Your task to perform on an android device: open a bookmark in the chrome app Image 0: 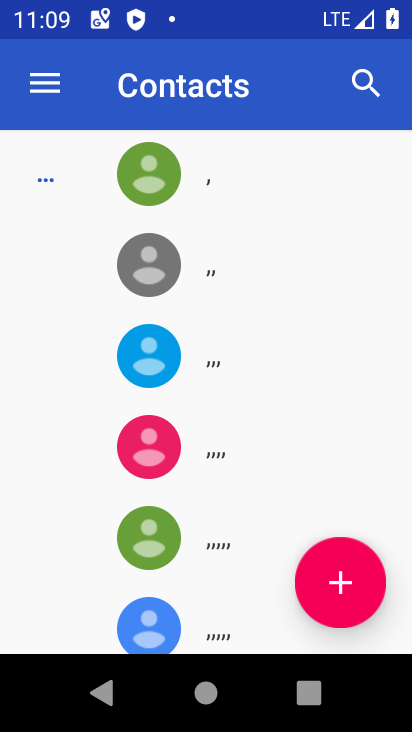
Step 0: press home button
Your task to perform on an android device: open a bookmark in the chrome app Image 1: 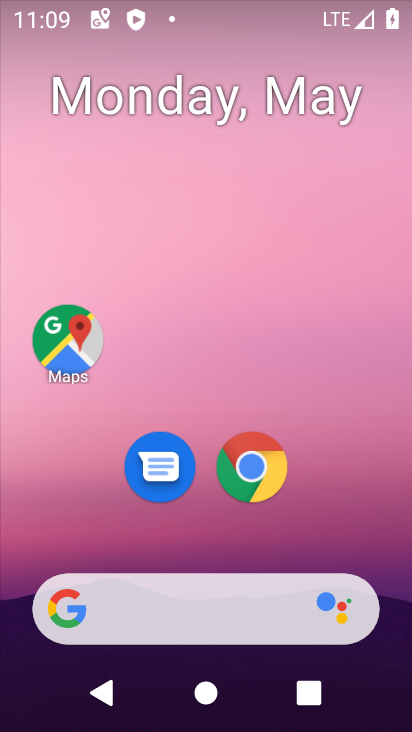
Step 1: click (260, 471)
Your task to perform on an android device: open a bookmark in the chrome app Image 2: 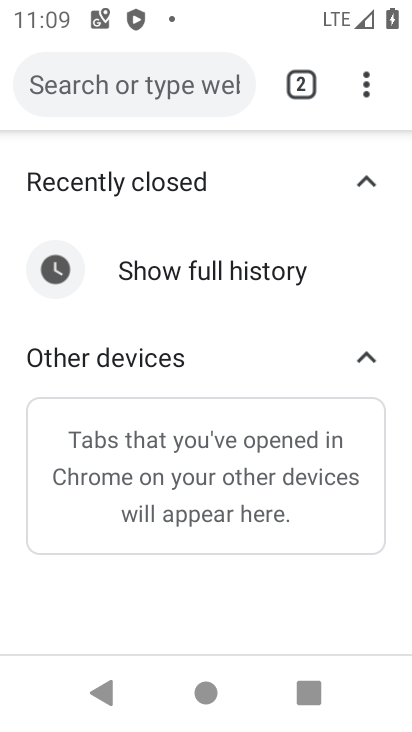
Step 2: click (369, 81)
Your task to perform on an android device: open a bookmark in the chrome app Image 3: 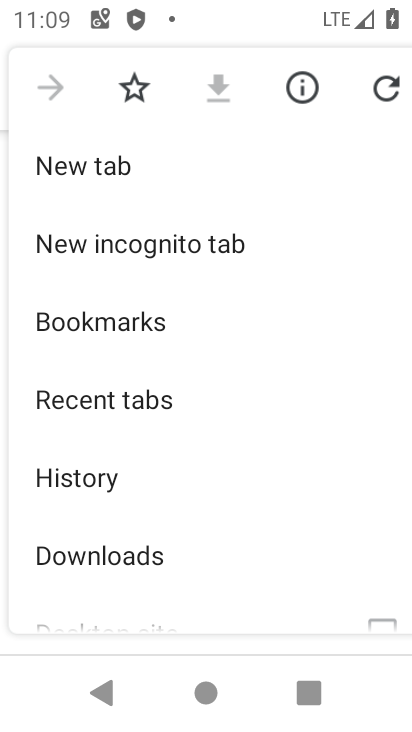
Step 3: click (100, 323)
Your task to perform on an android device: open a bookmark in the chrome app Image 4: 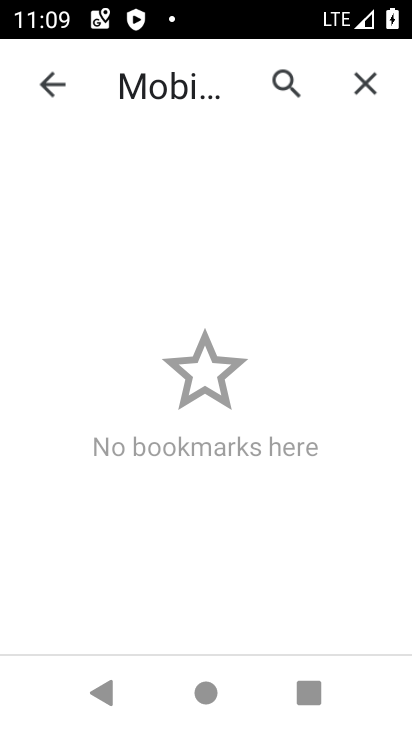
Step 4: task complete